Your task to perform on an android device: check out phone information Image 0: 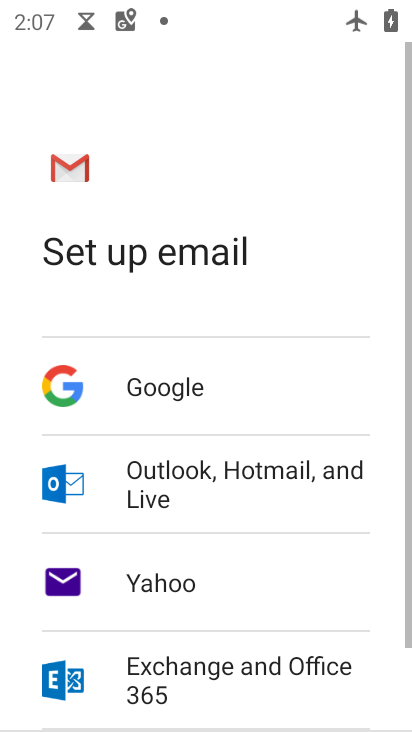
Step 0: press home button
Your task to perform on an android device: check out phone information Image 1: 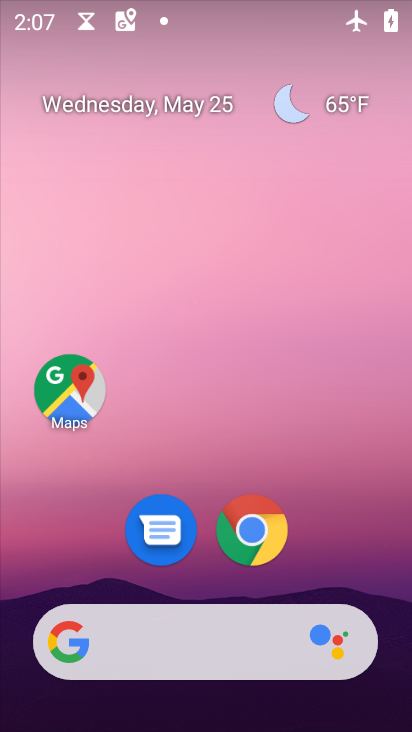
Step 1: drag from (307, 345) to (314, 147)
Your task to perform on an android device: check out phone information Image 2: 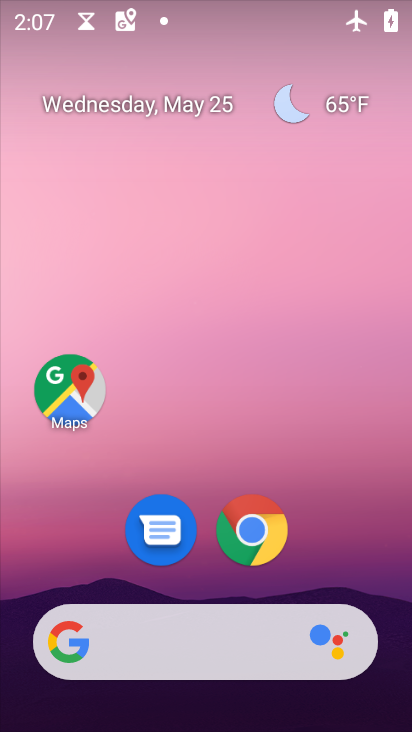
Step 2: drag from (239, 502) to (265, 164)
Your task to perform on an android device: check out phone information Image 3: 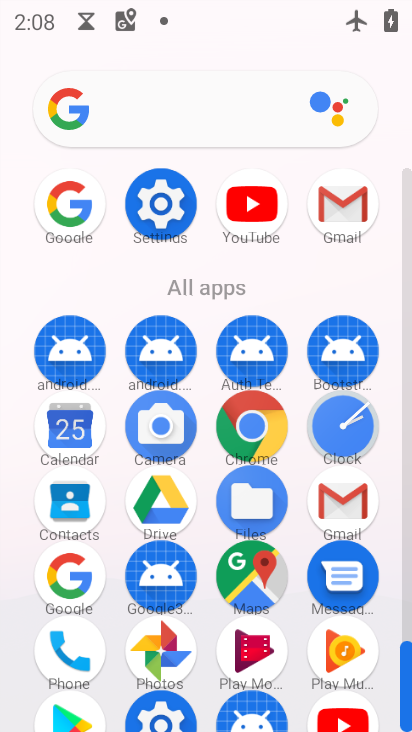
Step 3: click (163, 214)
Your task to perform on an android device: check out phone information Image 4: 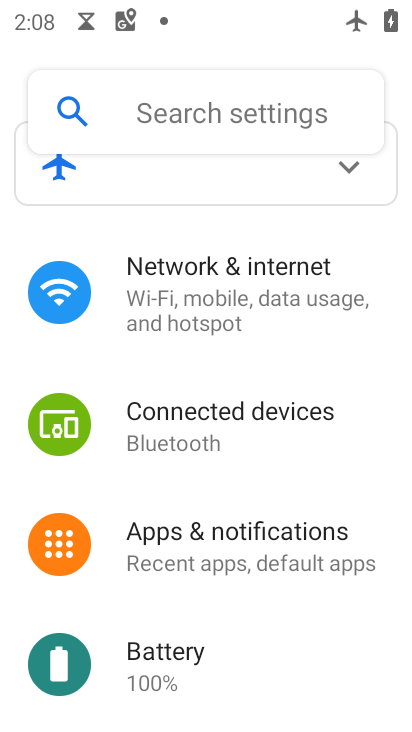
Step 4: drag from (231, 650) to (232, 116)
Your task to perform on an android device: check out phone information Image 5: 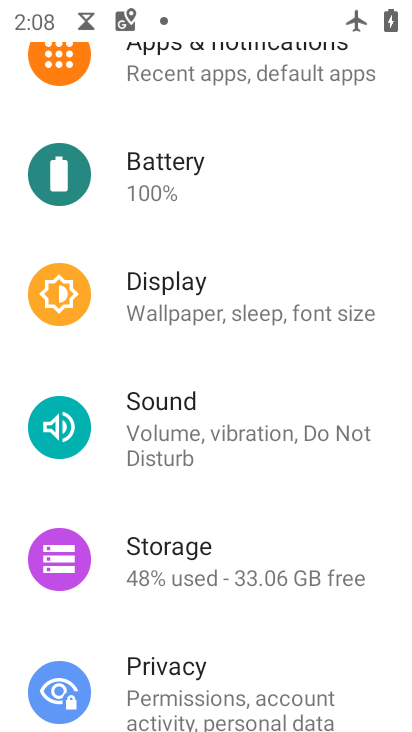
Step 5: drag from (196, 556) to (234, 204)
Your task to perform on an android device: check out phone information Image 6: 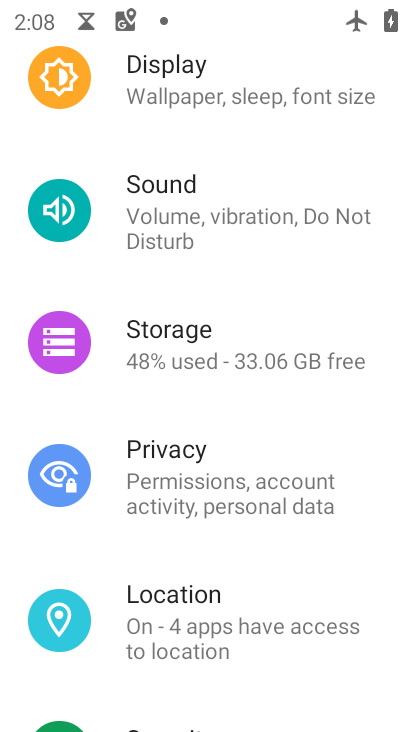
Step 6: drag from (229, 645) to (256, 256)
Your task to perform on an android device: check out phone information Image 7: 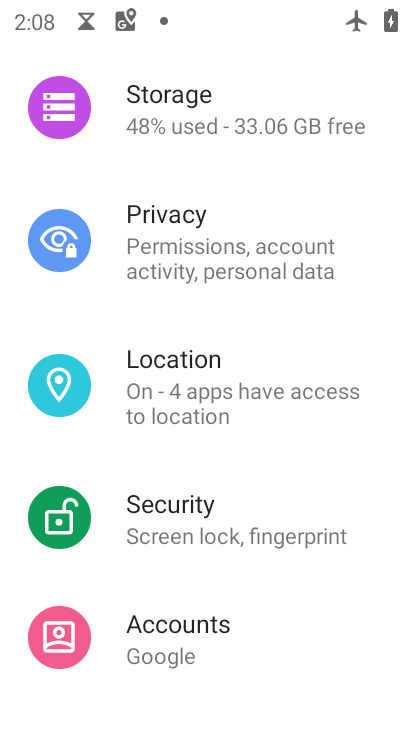
Step 7: drag from (225, 577) to (246, 229)
Your task to perform on an android device: check out phone information Image 8: 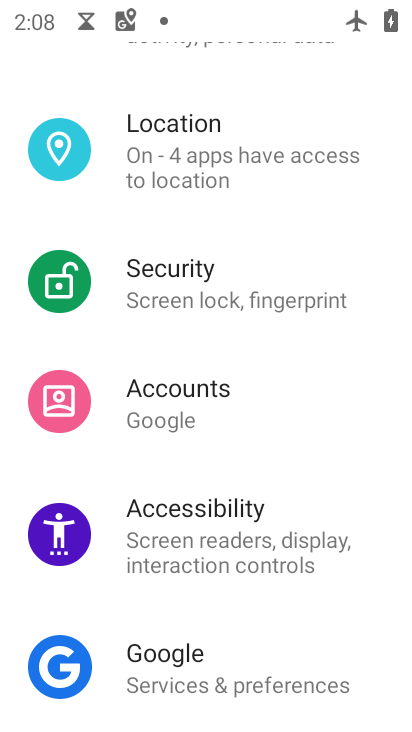
Step 8: drag from (215, 642) to (234, 186)
Your task to perform on an android device: check out phone information Image 9: 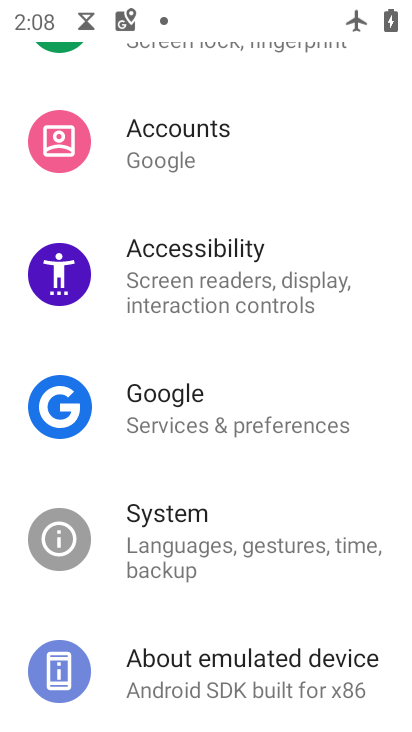
Step 9: click (214, 673)
Your task to perform on an android device: check out phone information Image 10: 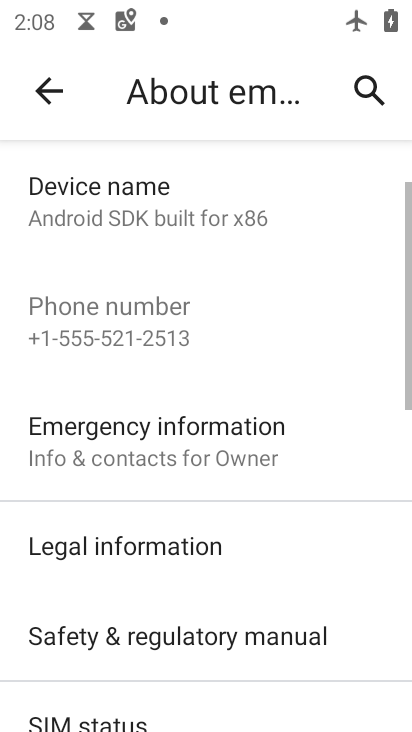
Step 10: task complete